Your task to perform on an android device: toggle airplane mode Image 0: 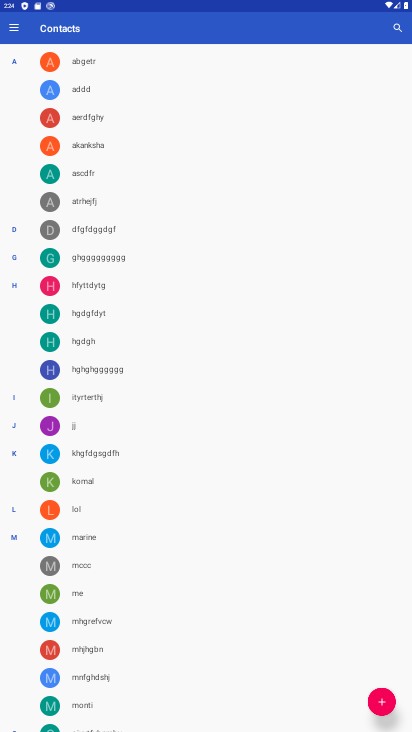
Step 0: press home button
Your task to perform on an android device: toggle airplane mode Image 1: 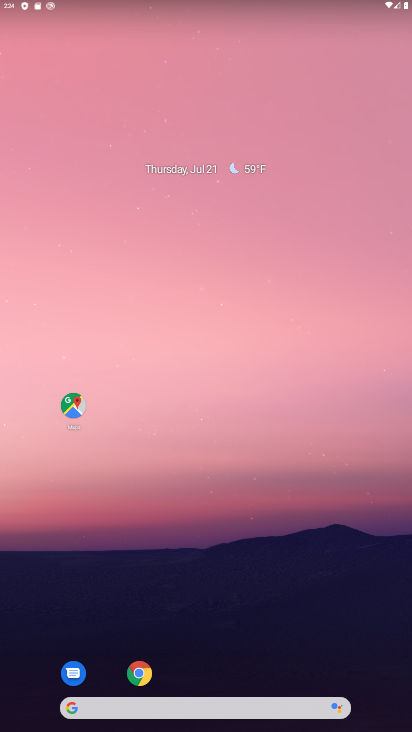
Step 1: drag from (374, 685) to (345, 221)
Your task to perform on an android device: toggle airplane mode Image 2: 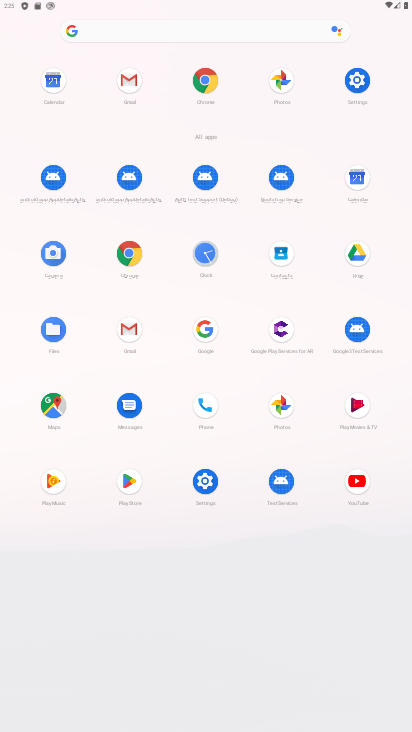
Step 2: click (205, 479)
Your task to perform on an android device: toggle airplane mode Image 3: 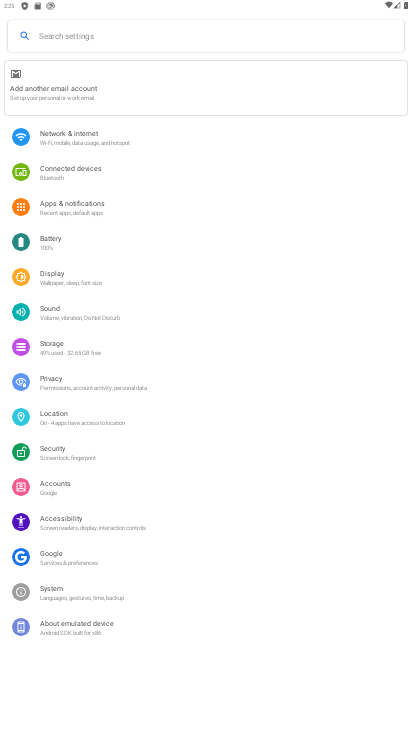
Step 3: click (53, 134)
Your task to perform on an android device: toggle airplane mode Image 4: 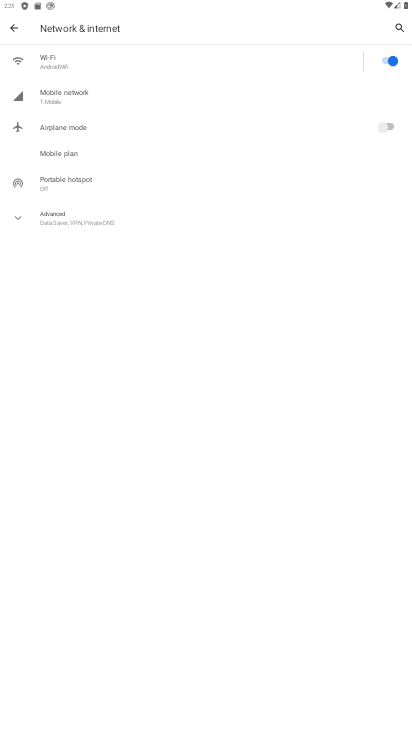
Step 4: click (392, 128)
Your task to perform on an android device: toggle airplane mode Image 5: 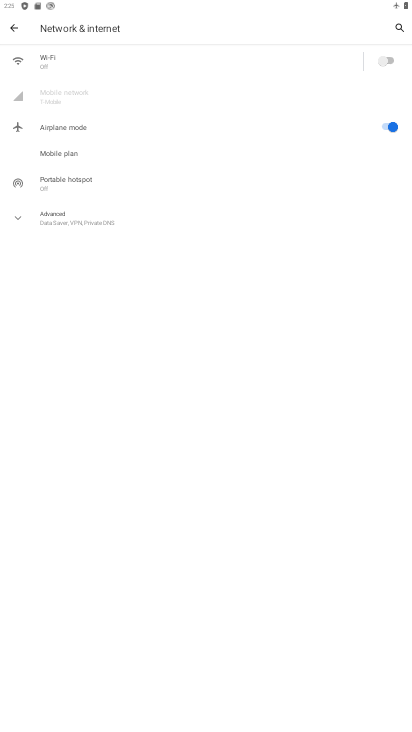
Step 5: task complete